Your task to perform on an android device: choose inbox layout in the gmail app Image 0: 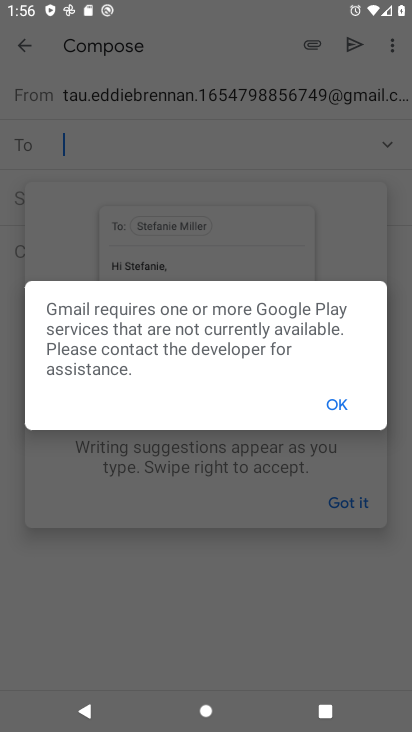
Step 0: press home button
Your task to perform on an android device: choose inbox layout in the gmail app Image 1: 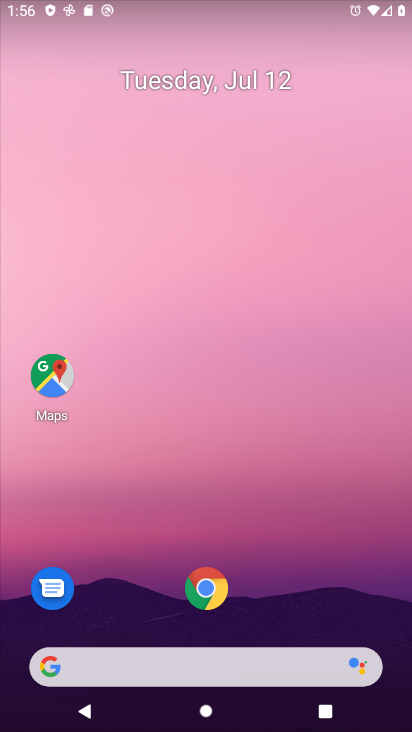
Step 1: drag from (170, 667) to (283, 277)
Your task to perform on an android device: choose inbox layout in the gmail app Image 2: 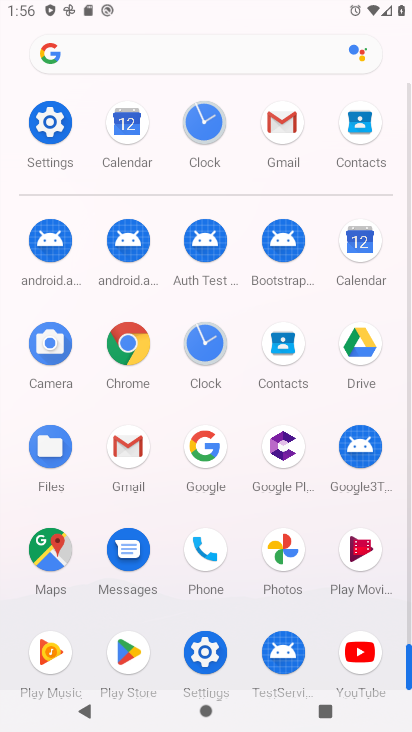
Step 2: click (284, 126)
Your task to perform on an android device: choose inbox layout in the gmail app Image 3: 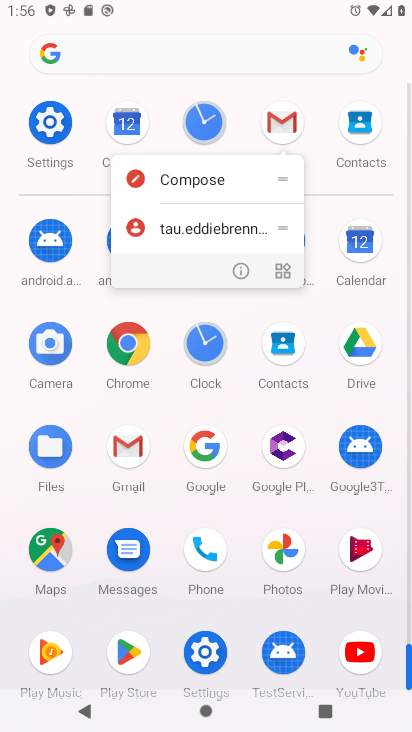
Step 3: click (284, 126)
Your task to perform on an android device: choose inbox layout in the gmail app Image 4: 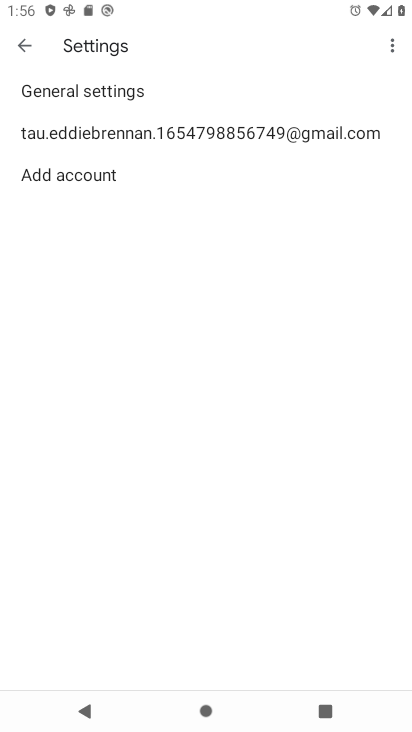
Step 4: click (267, 131)
Your task to perform on an android device: choose inbox layout in the gmail app Image 5: 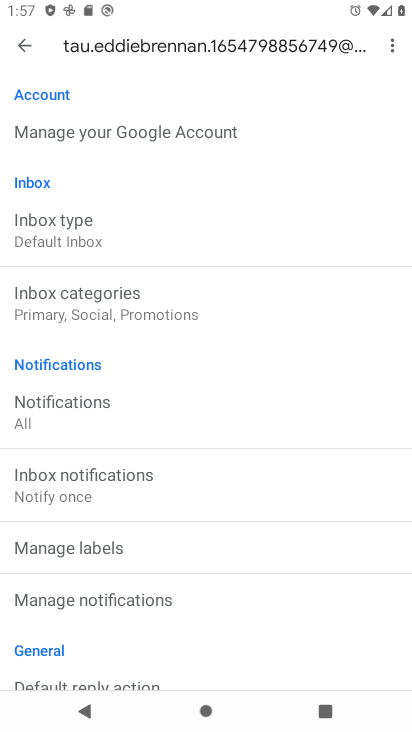
Step 5: click (93, 233)
Your task to perform on an android device: choose inbox layout in the gmail app Image 6: 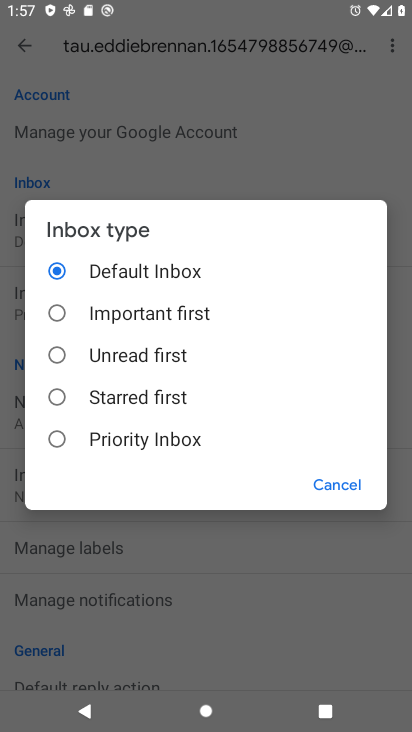
Step 6: click (58, 440)
Your task to perform on an android device: choose inbox layout in the gmail app Image 7: 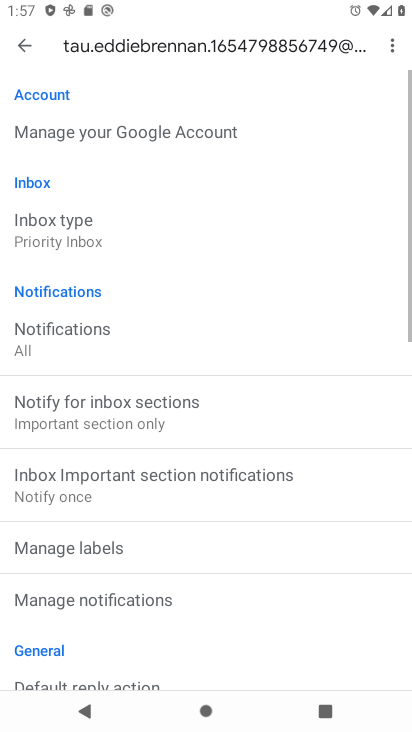
Step 7: task complete